Your task to perform on an android device: turn off data saver in the chrome app Image 0: 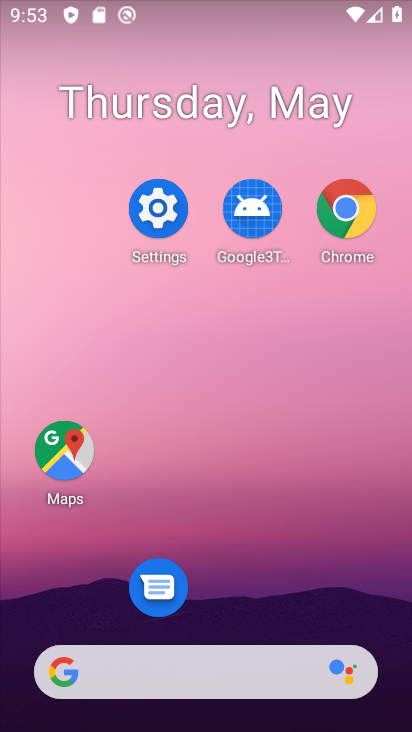
Step 0: click (330, 204)
Your task to perform on an android device: turn off data saver in the chrome app Image 1: 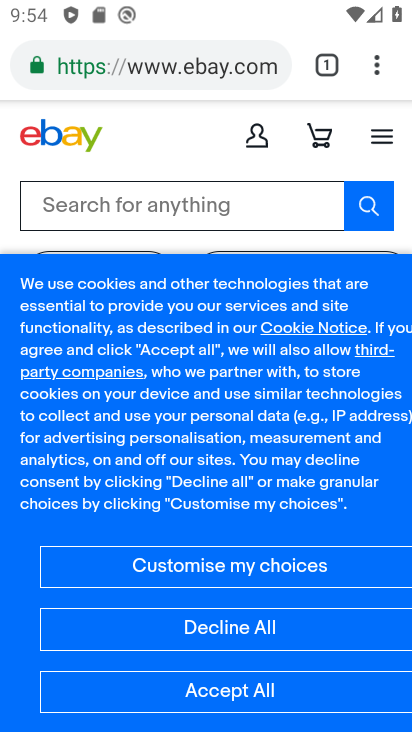
Step 1: click (380, 64)
Your task to perform on an android device: turn off data saver in the chrome app Image 2: 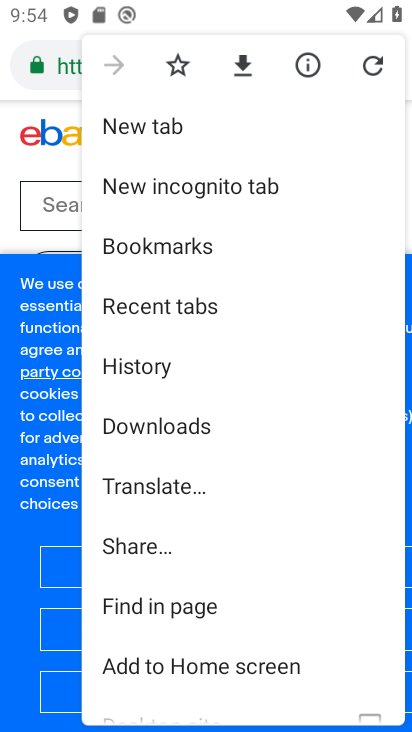
Step 2: drag from (171, 619) to (176, 306)
Your task to perform on an android device: turn off data saver in the chrome app Image 3: 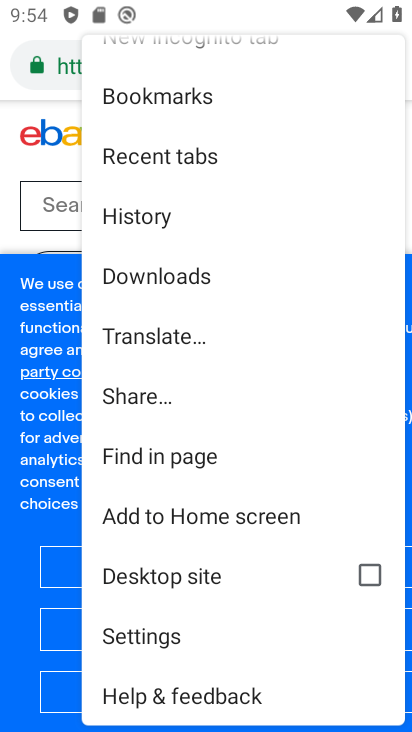
Step 3: click (158, 639)
Your task to perform on an android device: turn off data saver in the chrome app Image 4: 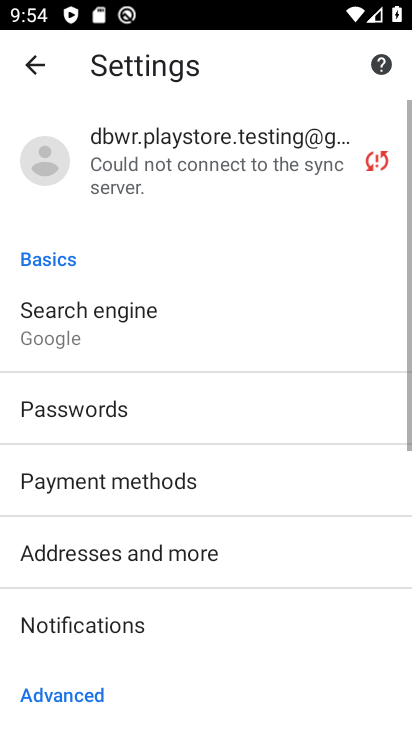
Step 4: drag from (157, 632) to (201, 149)
Your task to perform on an android device: turn off data saver in the chrome app Image 5: 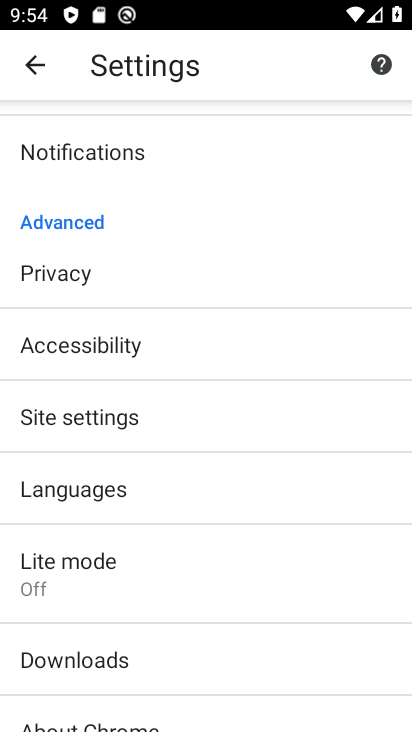
Step 5: click (44, 592)
Your task to perform on an android device: turn off data saver in the chrome app Image 6: 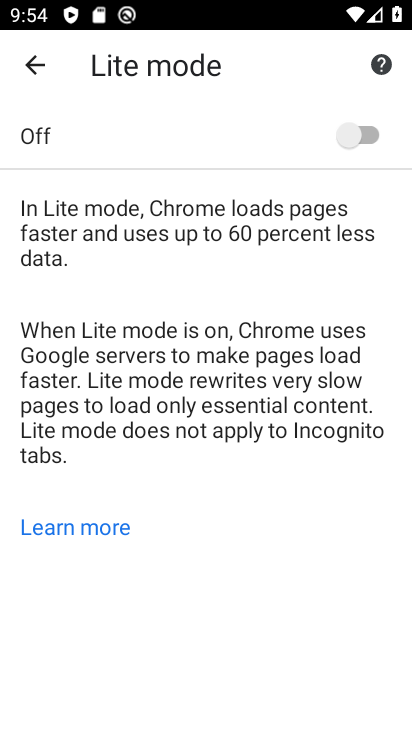
Step 6: task complete